Your task to perform on an android device: Open Yahoo.com Image 0: 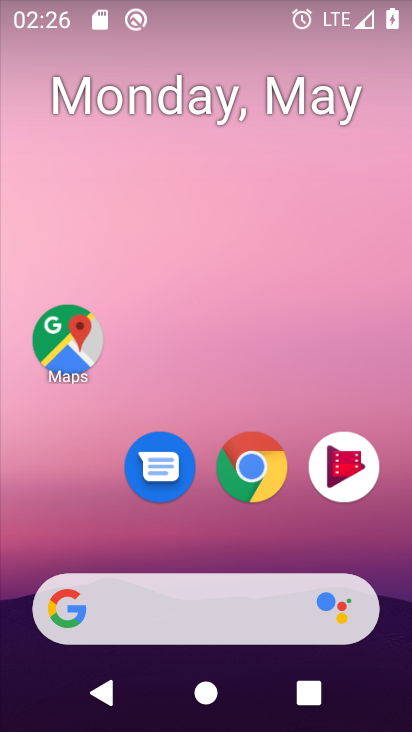
Step 0: drag from (207, 538) to (268, 175)
Your task to perform on an android device: Open Yahoo.com Image 1: 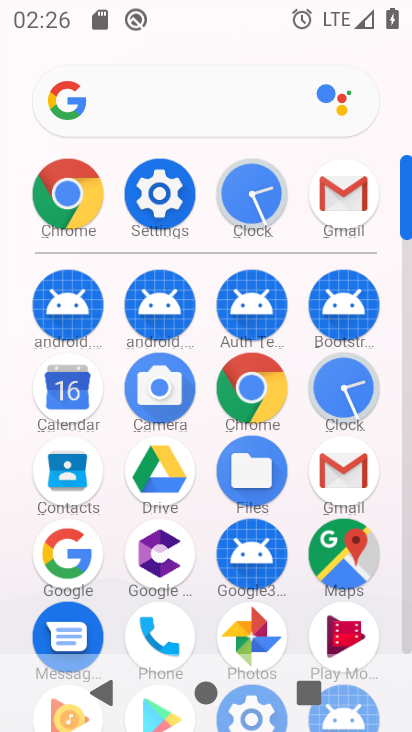
Step 1: click (76, 187)
Your task to perform on an android device: Open Yahoo.com Image 2: 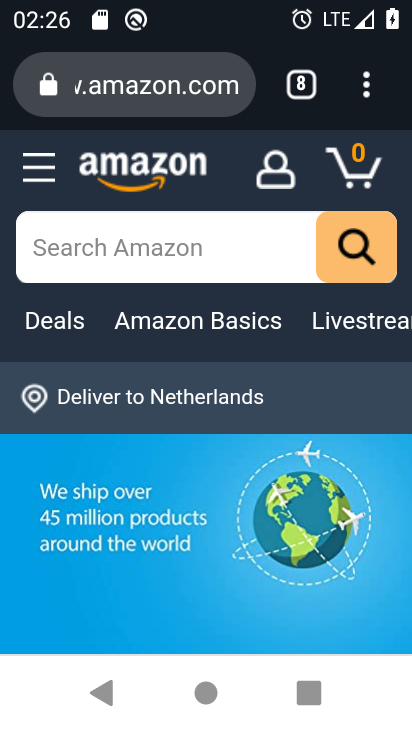
Step 2: click (344, 83)
Your task to perform on an android device: Open Yahoo.com Image 3: 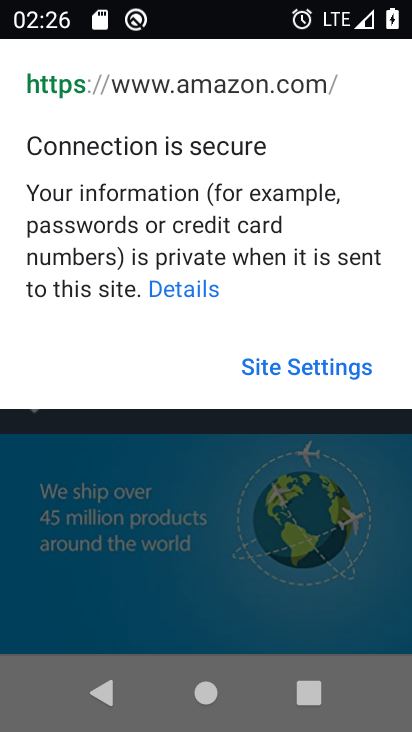
Step 3: press back button
Your task to perform on an android device: Open Yahoo.com Image 4: 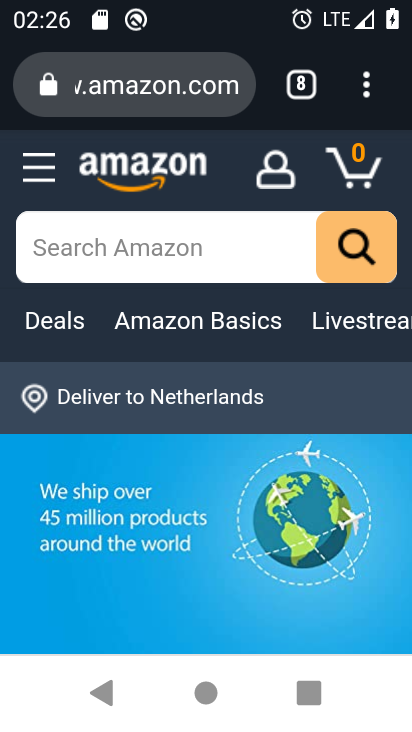
Step 4: click (348, 74)
Your task to perform on an android device: Open Yahoo.com Image 5: 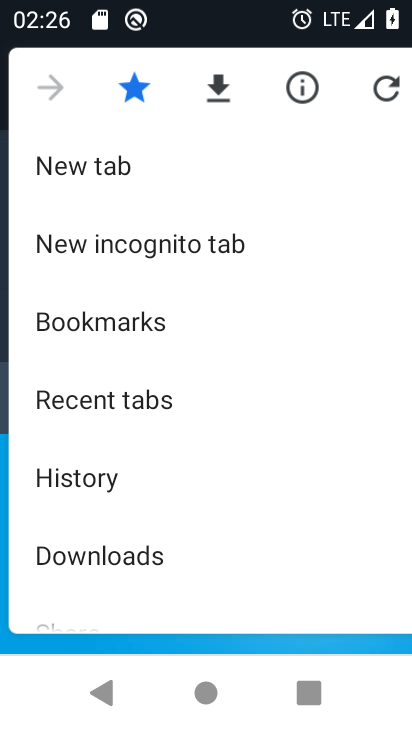
Step 5: click (117, 167)
Your task to perform on an android device: Open Yahoo.com Image 6: 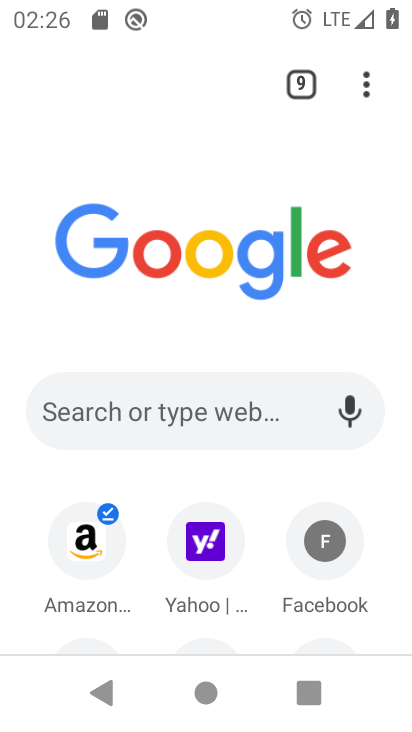
Step 6: click (212, 552)
Your task to perform on an android device: Open Yahoo.com Image 7: 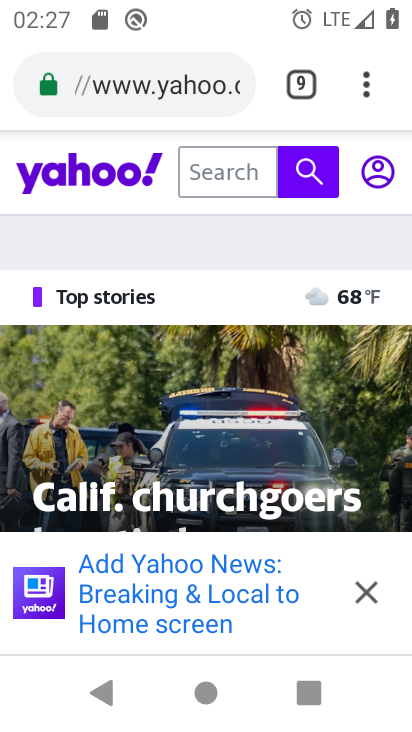
Step 7: task complete